Your task to perform on an android device: Add "dell alienware" to the cart on bestbuy Image 0: 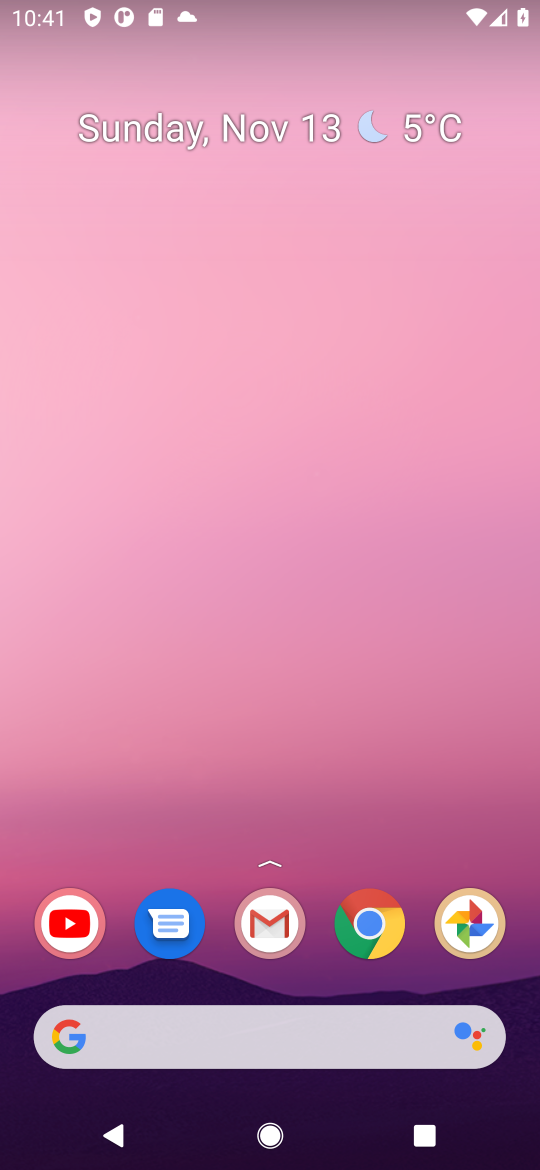
Step 0: click (366, 926)
Your task to perform on an android device: Add "dell alienware" to the cart on bestbuy Image 1: 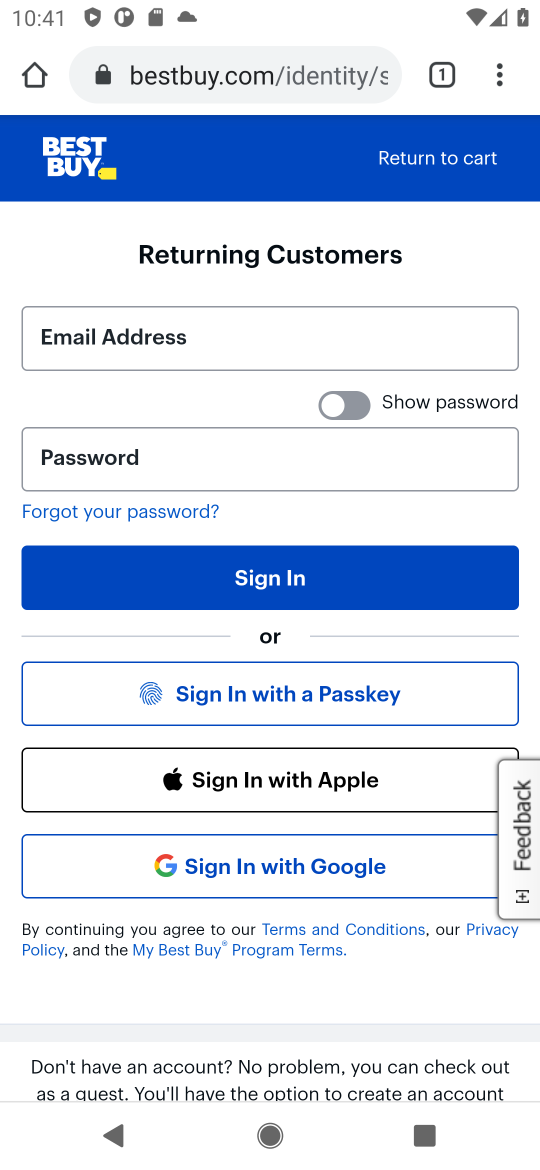
Step 1: click (66, 169)
Your task to perform on an android device: Add "dell alienware" to the cart on bestbuy Image 2: 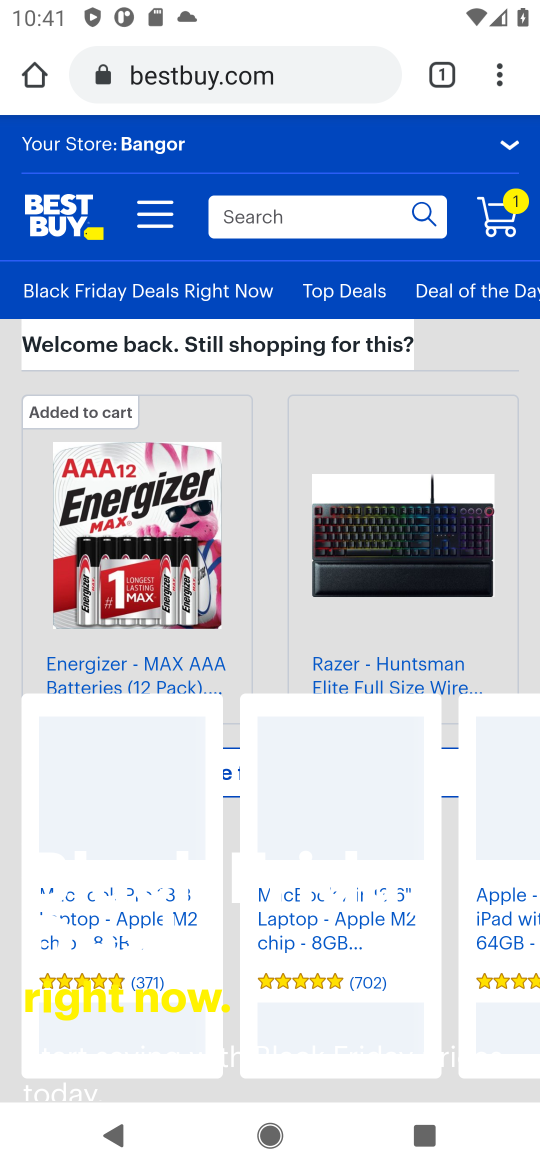
Step 2: click (366, 231)
Your task to perform on an android device: Add "dell alienware" to the cart on bestbuy Image 3: 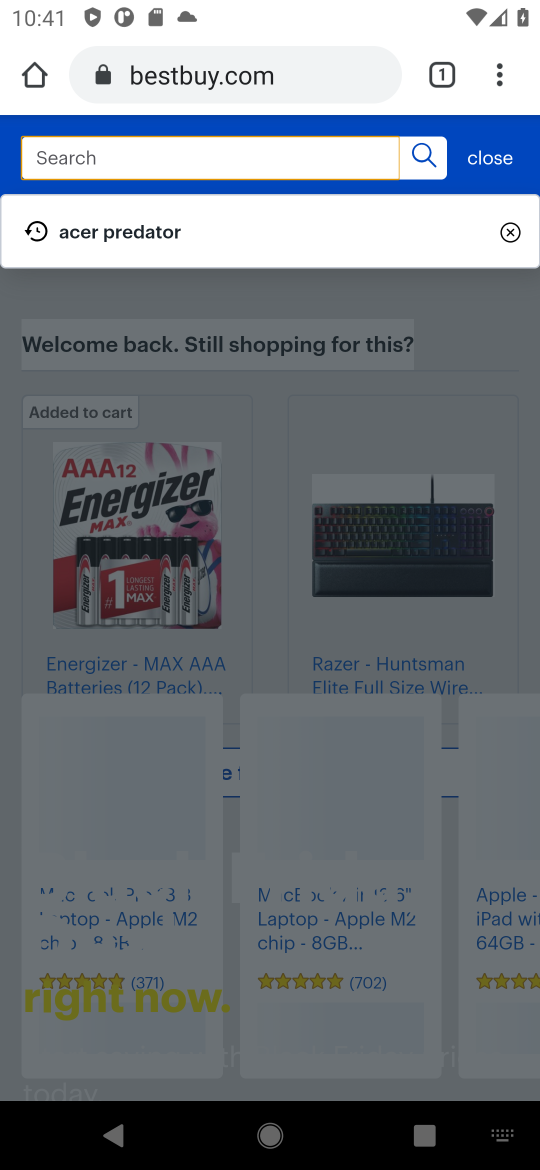
Step 3: type "dell alienware"
Your task to perform on an android device: Add "dell alienware" to the cart on bestbuy Image 4: 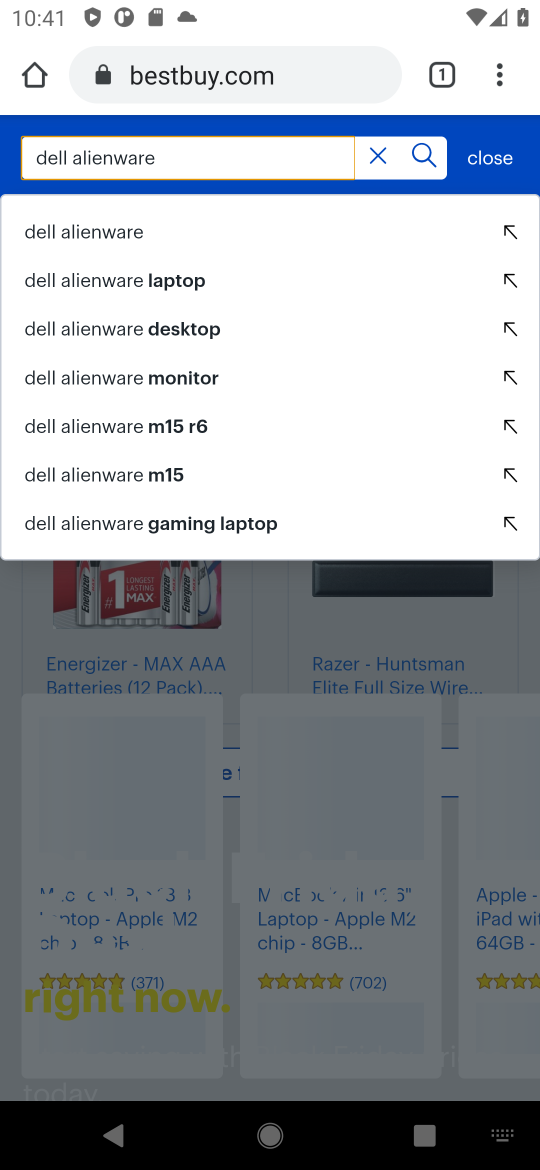
Step 4: press enter
Your task to perform on an android device: Add "dell alienware" to the cart on bestbuy Image 5: 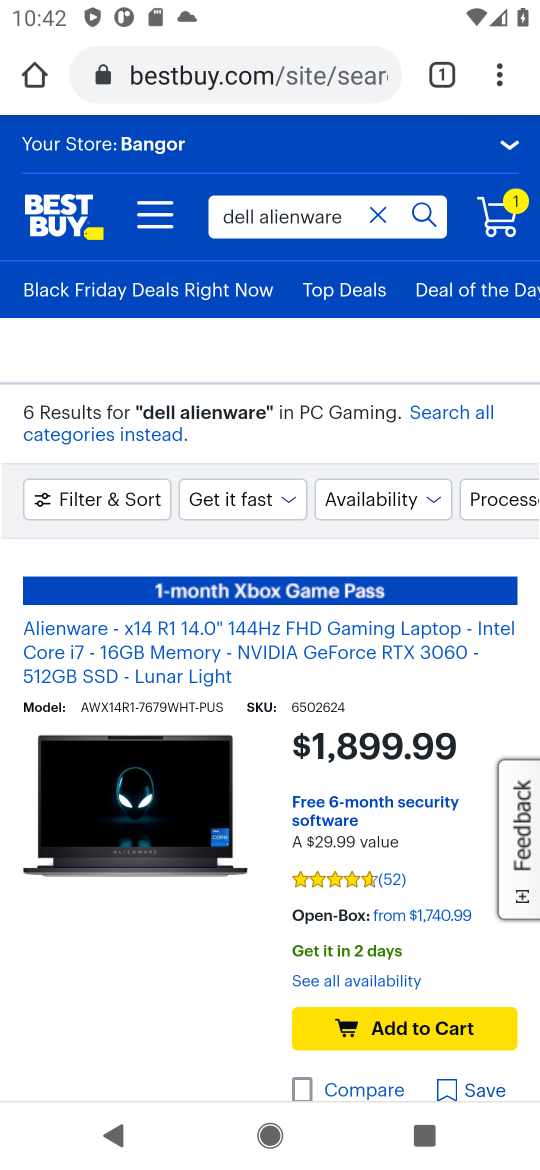
Step 5: click (374, 1027)
Your task to perform on an android device: Add "dell alienware" to the cart on bestbuy Image 6: 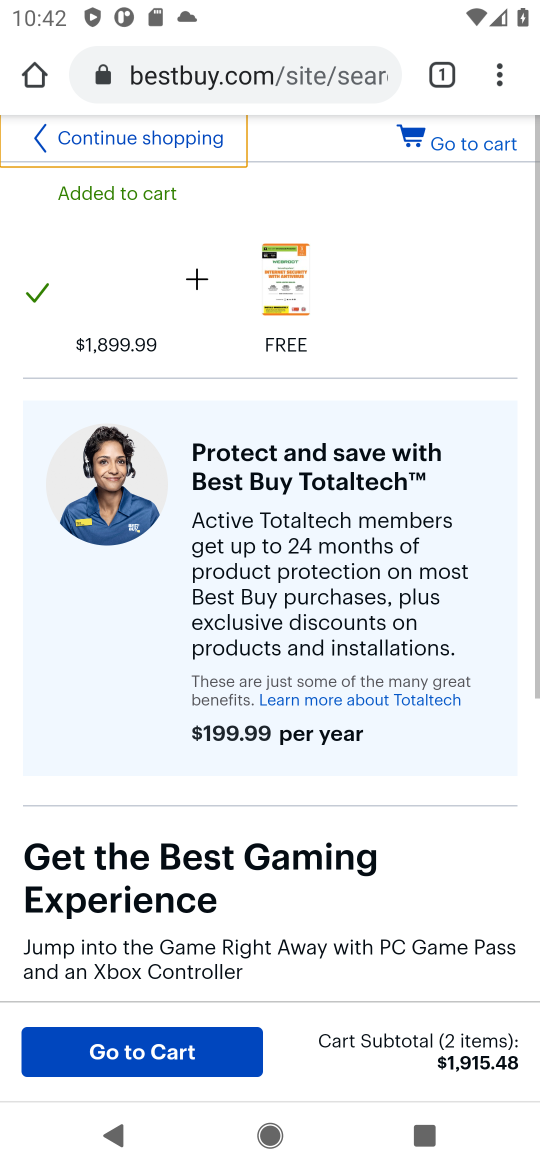
Step 6: click (171, 1048)
Your task to perform on an android device: Add "dell alienware" to the cart on bestbuy Image 7: 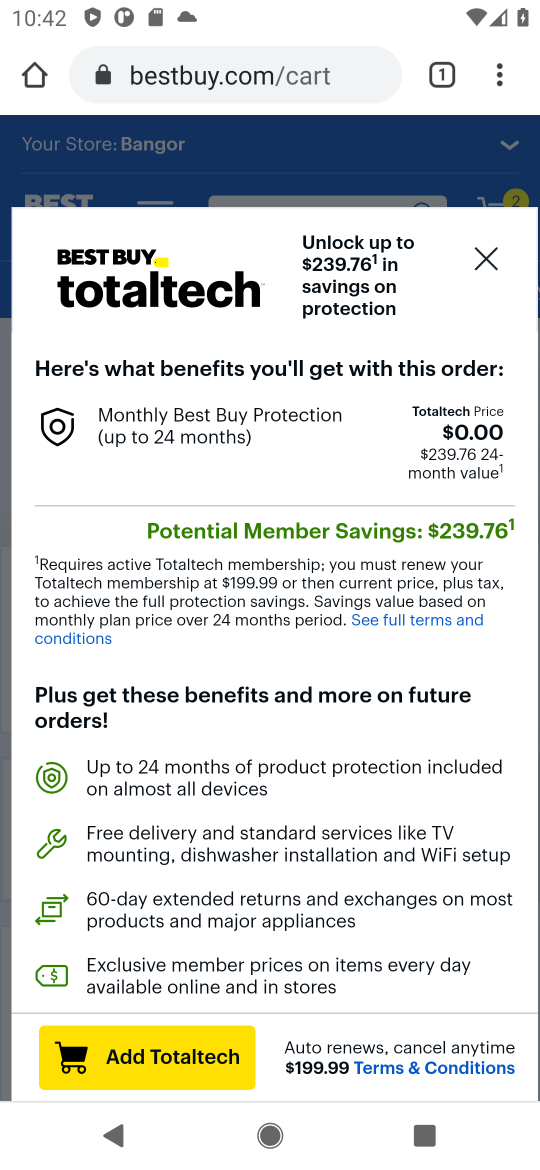
Step 7: click (137, 1055)
Your task to perform on an android device: Add "dell alienware" to the cart on bestbuy Image 8: 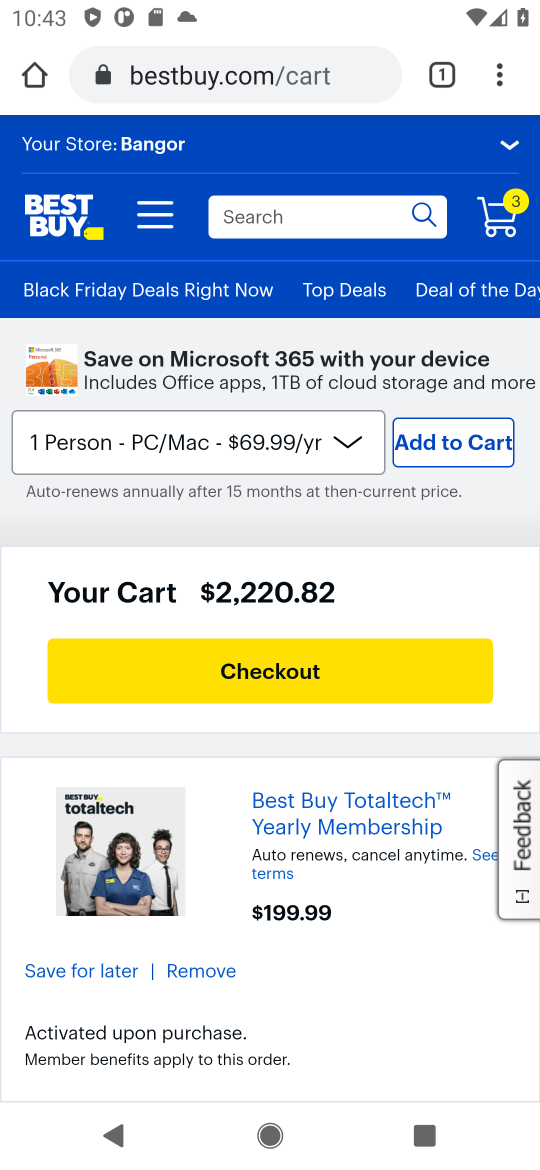
Step 8: task complete